Your task to perform on an android device: Open Chrome and go to the settings page Image 0: 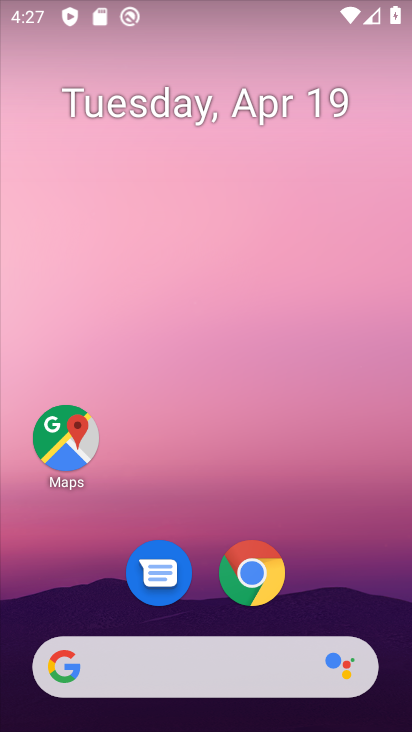
Step 0: drag from (351, 597) to (252, 147)
Your task to perform on an android device: Open Chrome and go to the settings page Image 1: 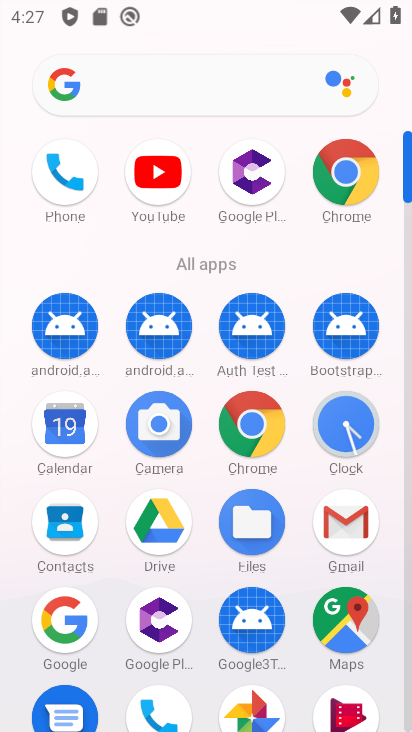
Step 1: drag from (402, 491) to (405, 200)
Your task to perform on an android device: Open Chrome and go to the settings page Image 2: 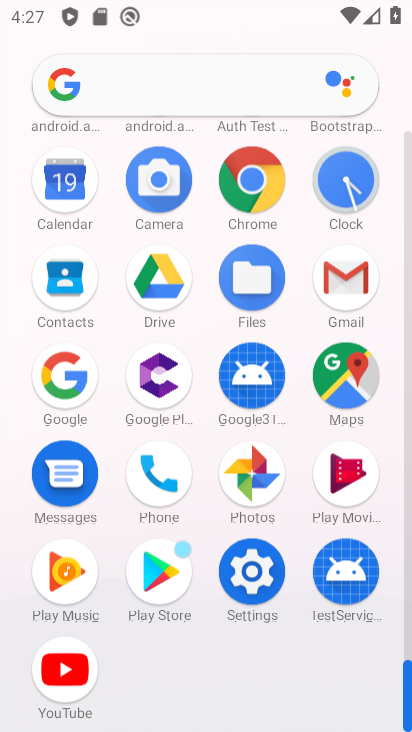
Step 2: click (248, 591)
Your task to perform on an android device: Open Chrome and go to the settings page Image 3: 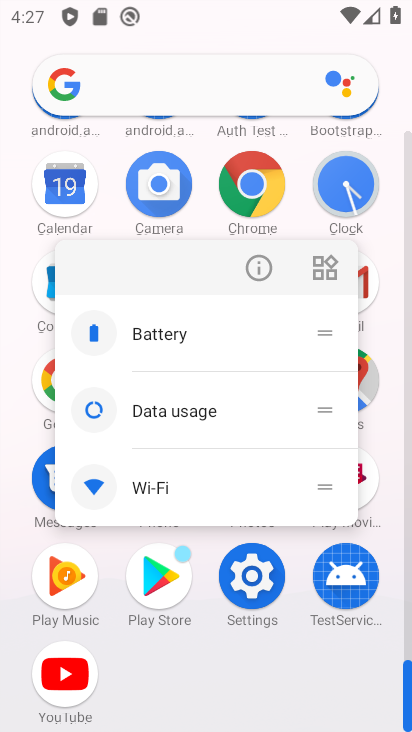
Step 3: click (248, 590)
Your task to perform on an android device: Open Chrome and go to the settings page Image 4: 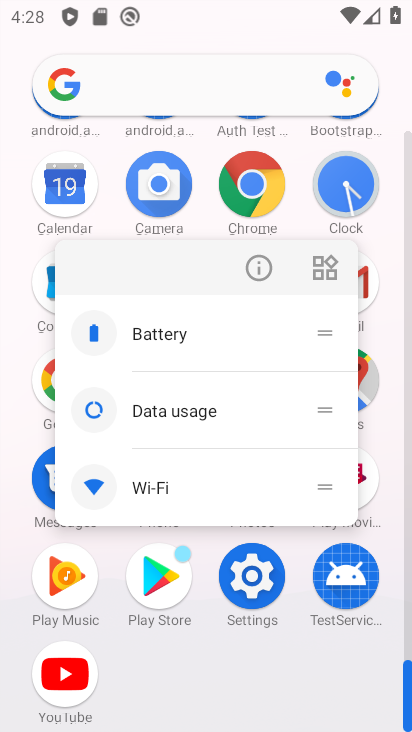
Step 4: click (260, 185)
Your task to perform on an android device: Open Chrome and go to the settings page Image 5: 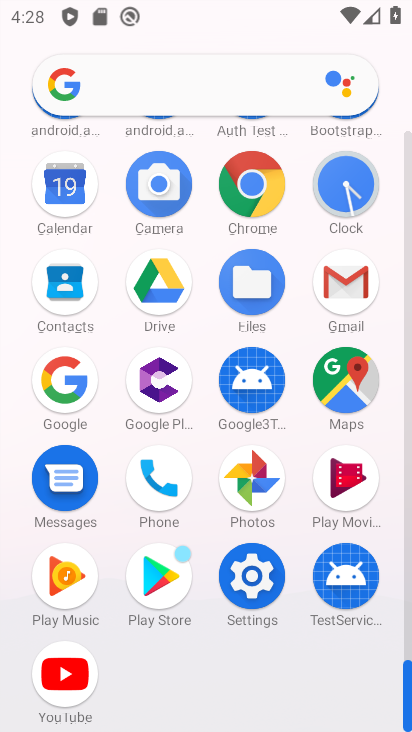
Step 5: click (256, 190)
Your task to perform on an android device: Open Chrome and go to the settings page Image 6: 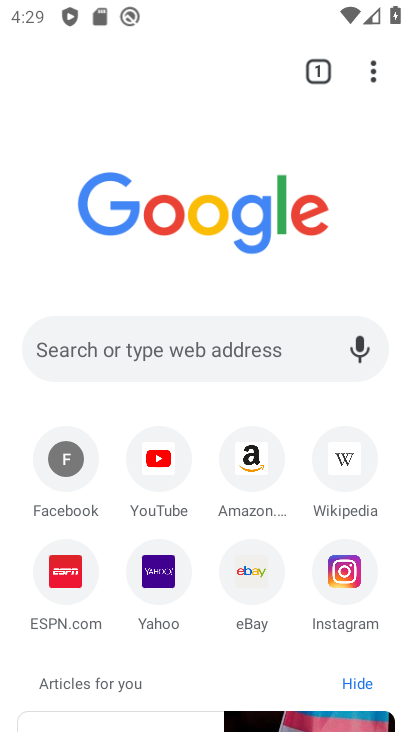
Step 6: click (370, 75)
Your task to perform on an android device: Open Chrome and go to the settings page Image 7: 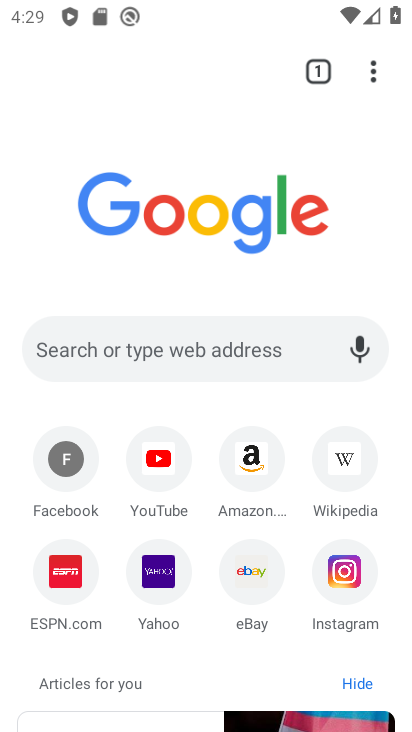
Step 7: task complete